Your task to perform on an android device: turn on airplane mode Image 0: 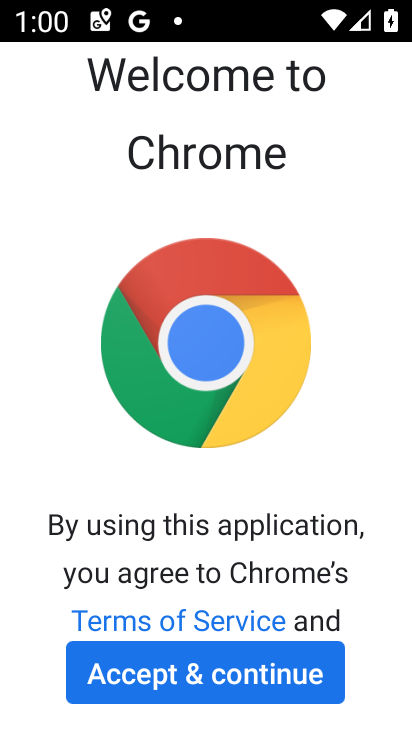
Step 0: click (251, 673)
Your task to perform on an android device: turn on airplane mode Image 1: 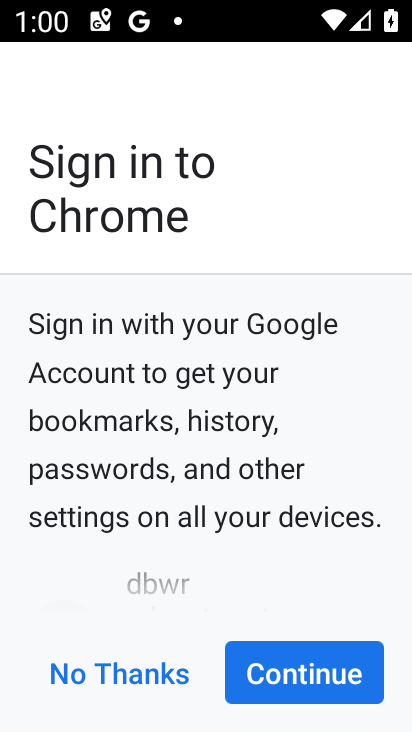
Step 1: click (305, 672)
Your task to perform on an android device: turn on airplane mode Image 2: 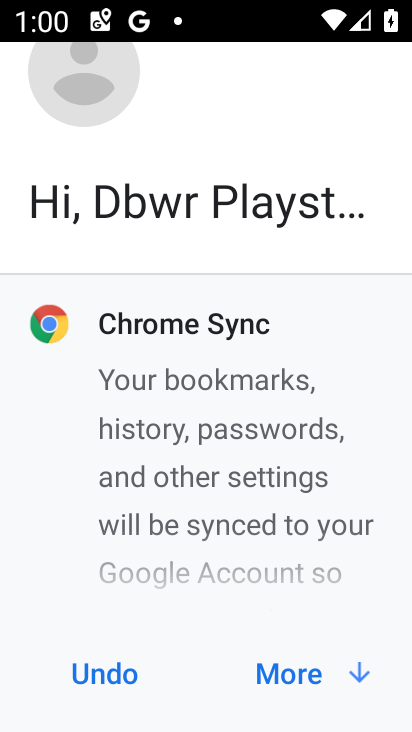
Step 2: click (275, 671)
Your task to perform on an android device: turn on airplane mode Image 3: 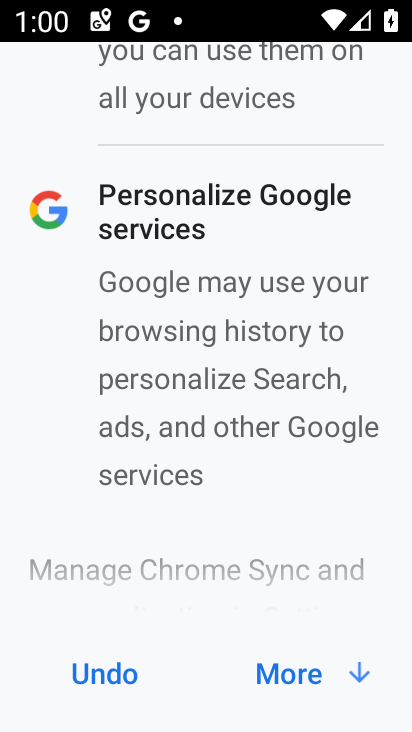
Step 3: click (275, 670)
Your task to perform on an android device: turn on airplane mode Image 4: 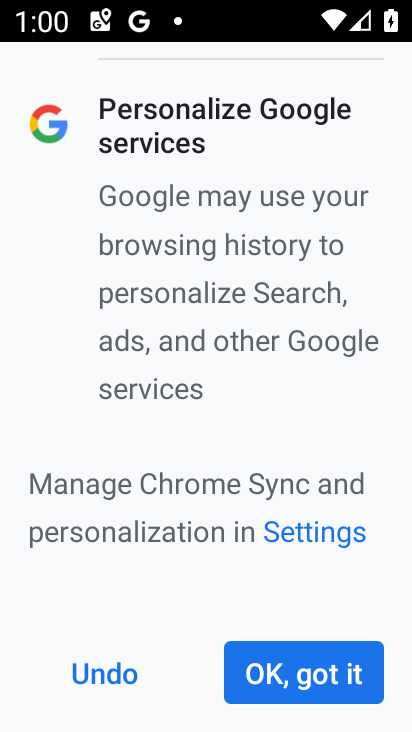
Step 4: click (275, 670)
Your task to perform on an android device: turn on airplane mode Image 5: 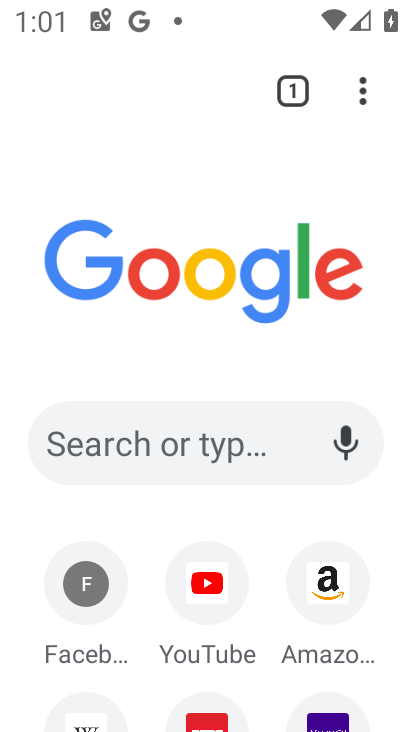
Step 5: click (363, 78)
Your task to perform on an android device: turn on airplane mode Image 6: 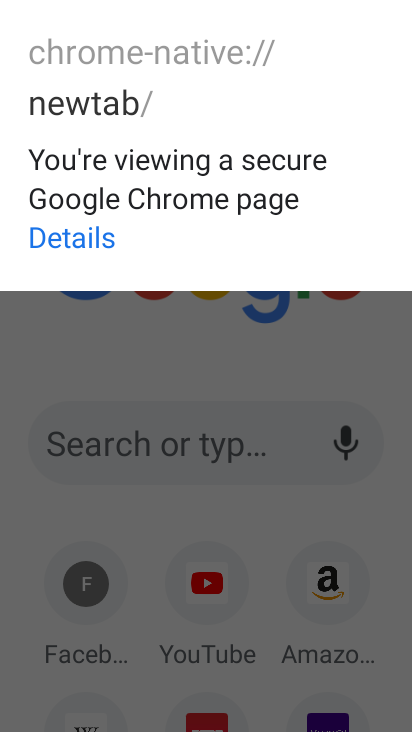
Step 6: press back button
Your task to perform on an android device: turn on airplane mode Image 7: 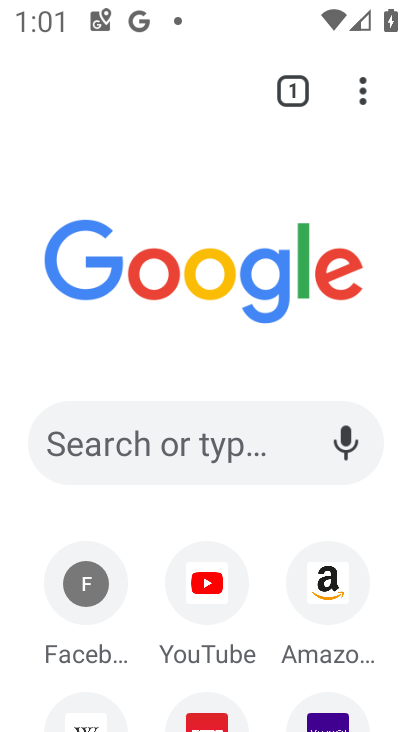
Step 7: press back button
Your task to perform on an android device: turn on airplane mode Image 8: 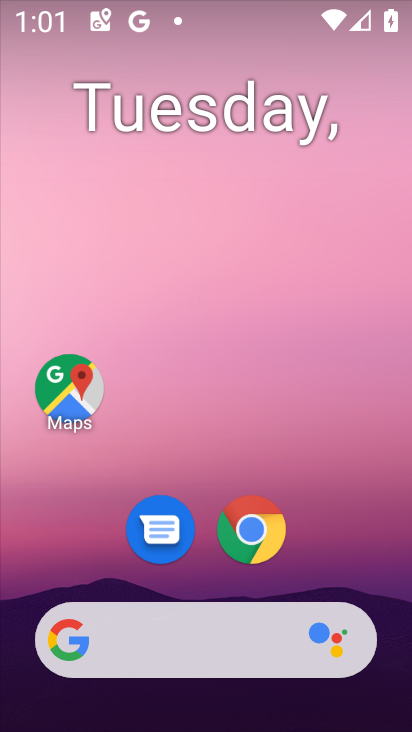
Step 8: drag from (368, 521) to (322, 200)
Your task to perform on an android device: turn on airplane mode Image 9: 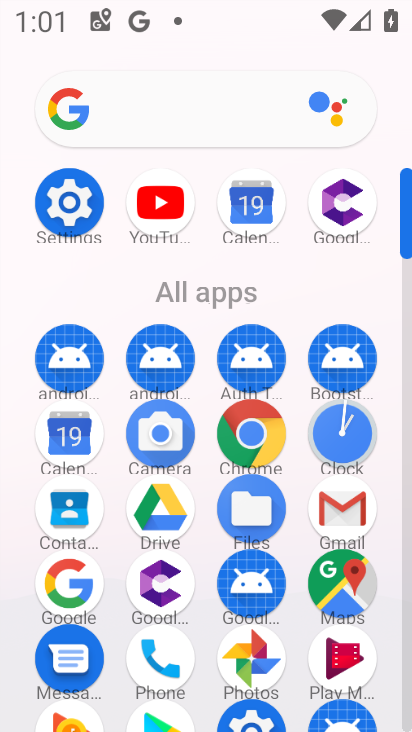
Step 9: click (61, 200)
Your task to perform on an android device: turn on airplane mode Image 10: 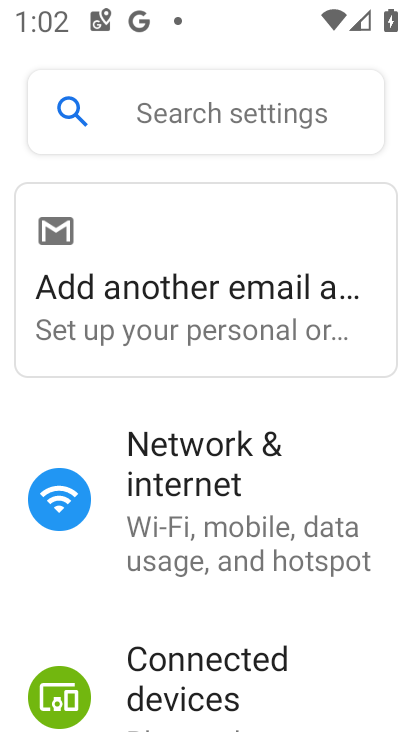
Step 10: click (183, 460)
Your task to perform on an android device: turn on airplane mode Image 11: 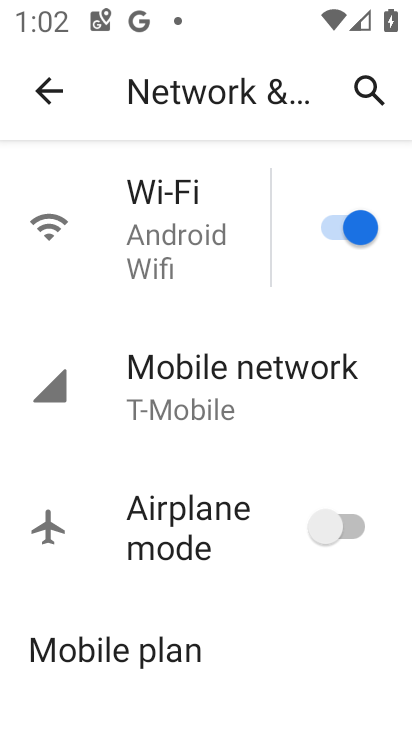
Step 11: click (351, 527)
Your task to perform on an android device: turn on airplane mode Image 12: 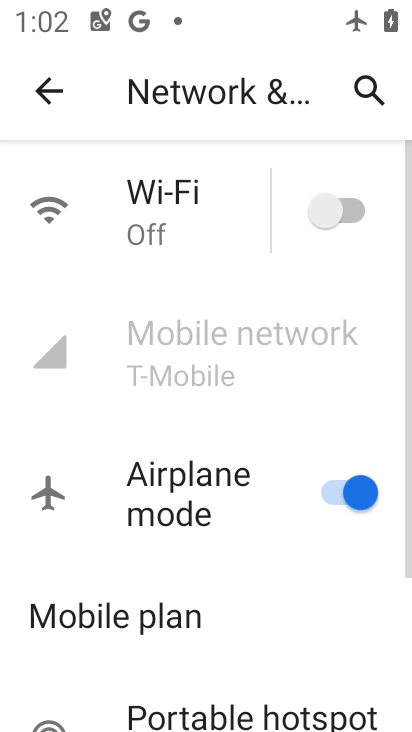
Step 12: task complete